Your task to perform on an android device: Is it going to rain today? Image 0: 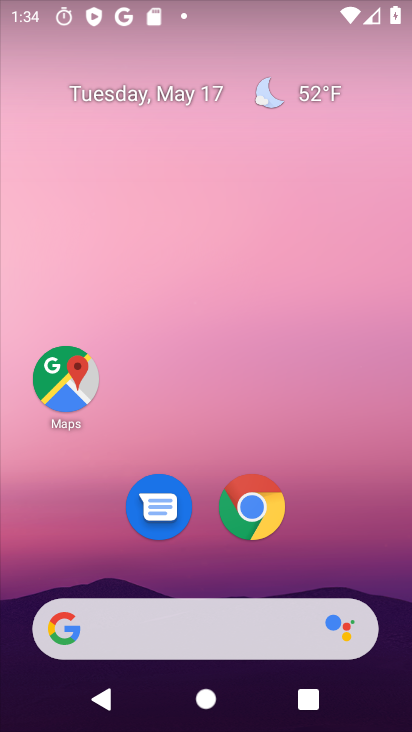
Step 0: drag from (200, 527) to (212, 129)
Your task to perform on an android device: Is it going to rain today? Image 1: 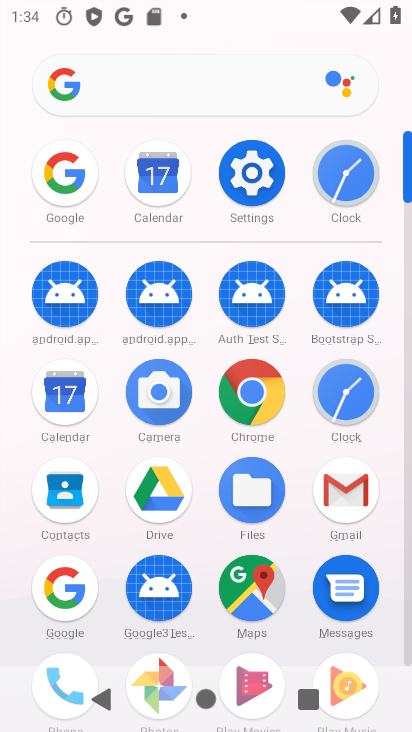
Step 1: click (64, 586)
Your task to perform on an android device: Is it going to rain today? Image 2: 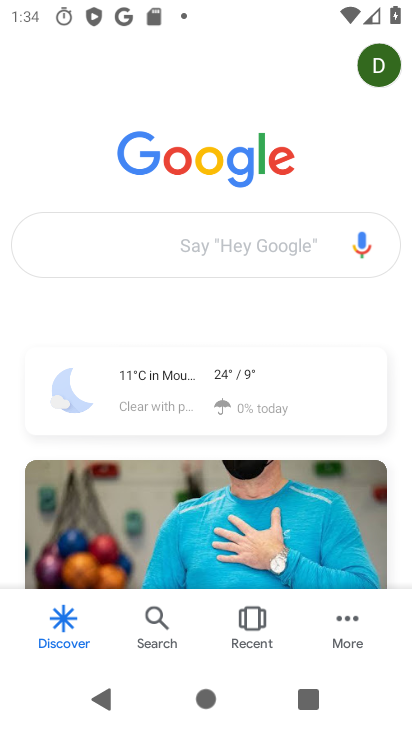
Step 2: click (195, 245)
Your task to perform on an android device: Is it going to rain today? Image 3: 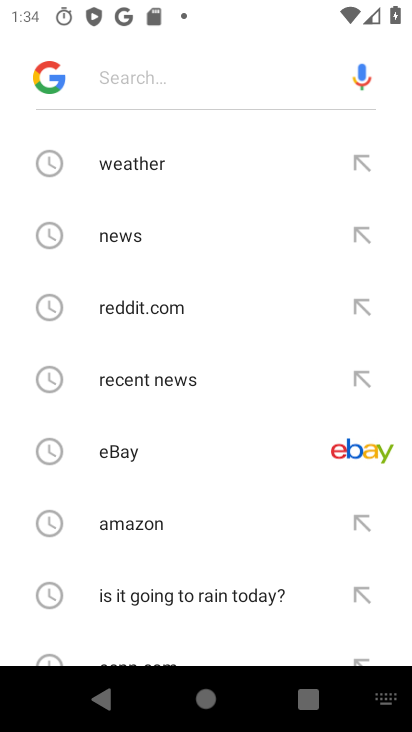
Step 3: type "is it going to rain today"
Your task to perform on an android device: Is it going to rain today? Image 4: 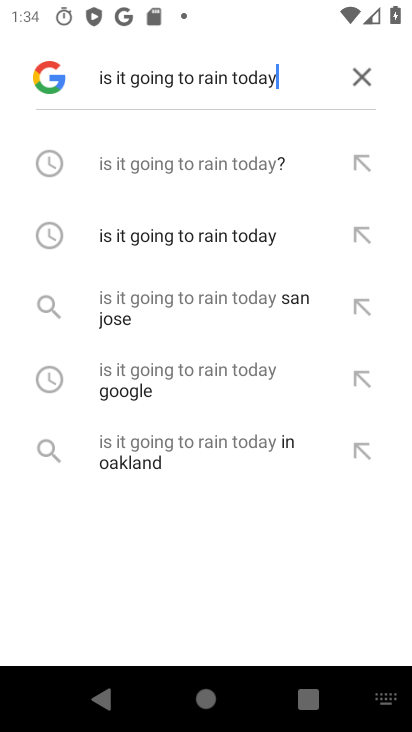
Step 4: click (193, 170)
Your task to perform on an android device: Is it going to rain today? Image 5: 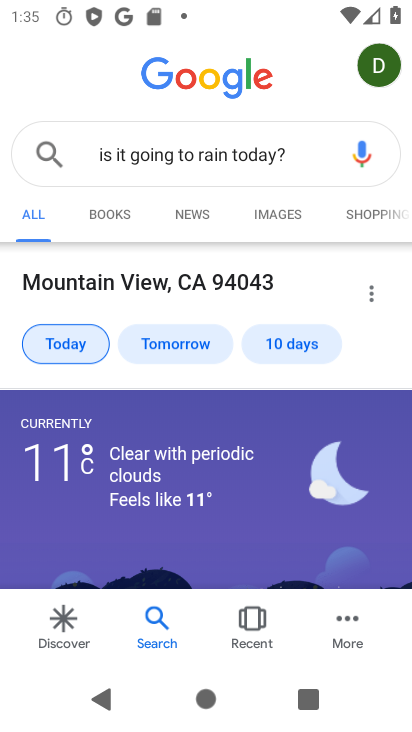
Step 5: task complete